Your task to perform on an android device: turn on wifi Image 0: 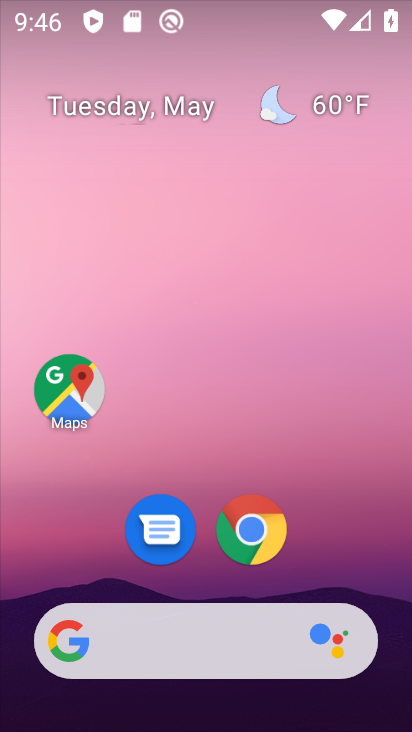
Step 0: drag from (212, 597) to (199, 211)
Your task to perform on an android device: turn on wifi Image 1: 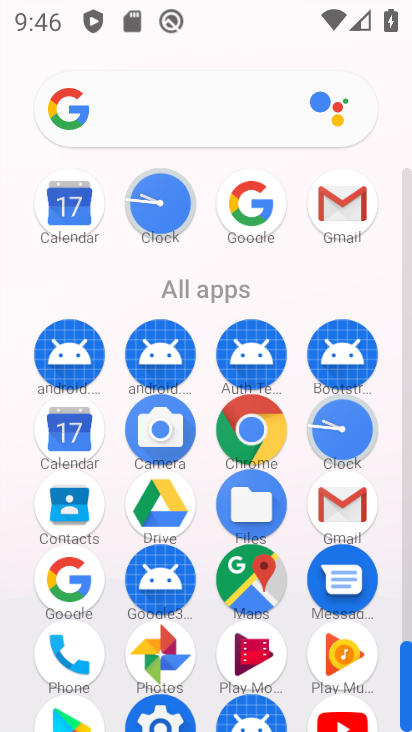
Step 1: drag from (116, 641) to (105, 396)
Your task to perform on an android device: turn on wifi Image 2: 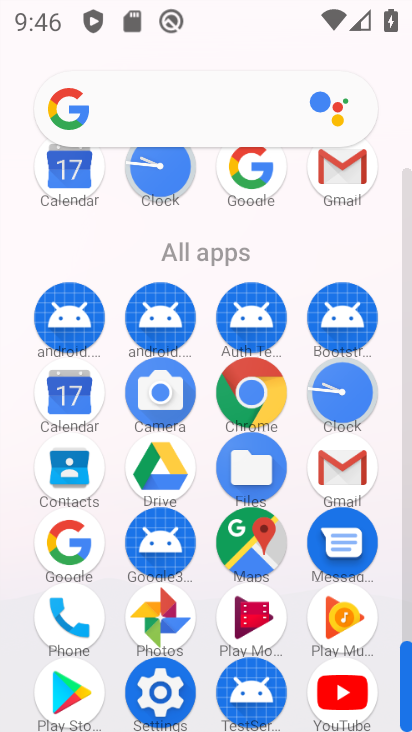
Step 2: click (156, 692)
Your task to perform on an android device: turn on wifi Image 3: 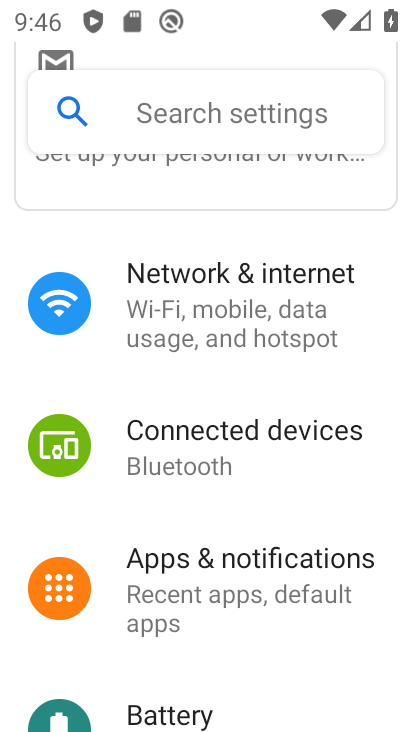
Step 3: click (176, 296)
Your task to perform on an android device: turn on wifi Image 4: 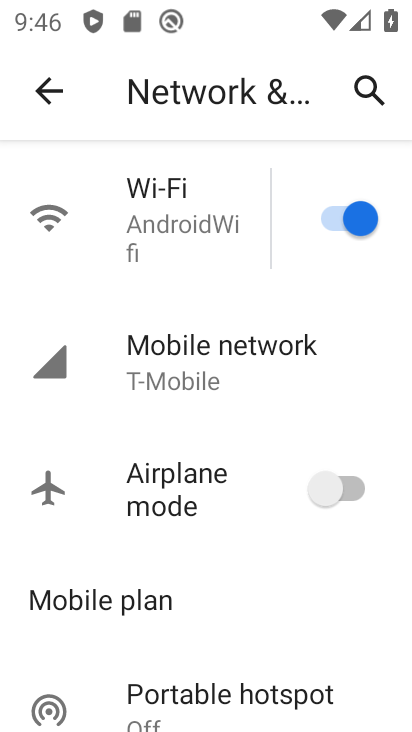
Step 4: task complete